Your task to perform on an android device: Open calendar and show me the fourth week of next month Image 0: 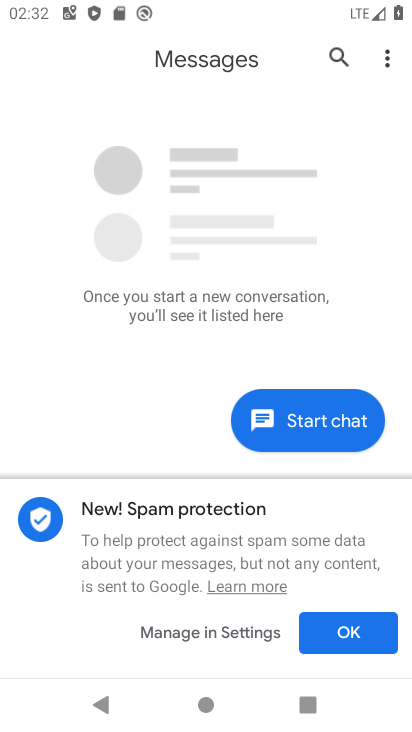
Step 0: drag from (172, 562) to (275, 173)
Your task to perform on an android device: Open calendar and show me the fourth week of next month Image 1: 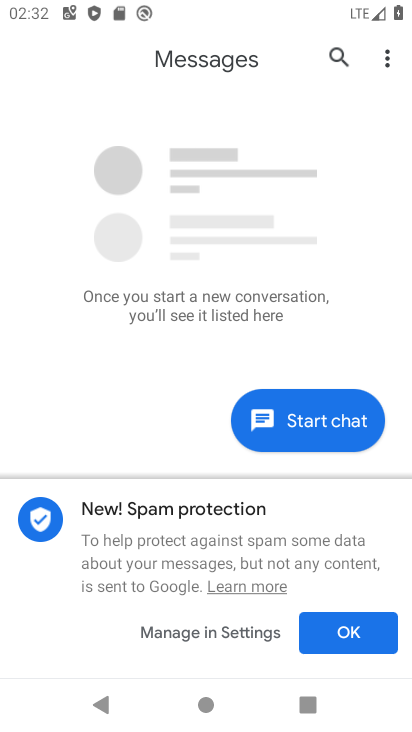
Step 1: press home button
Your task to perform on an android device: Open calendar and show me the fourth week of next month Image 2: 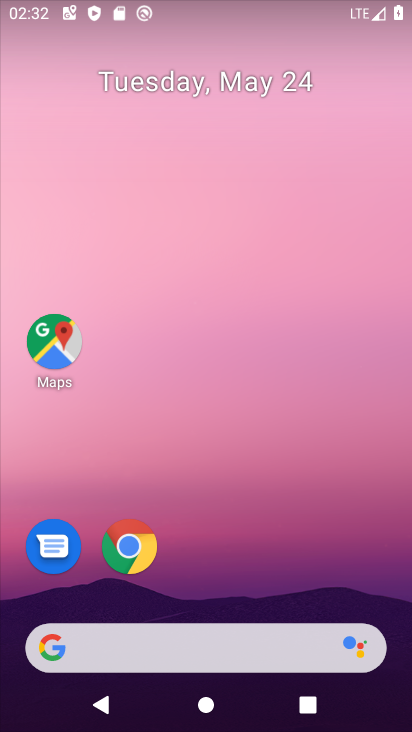
Step 2: drag from (236, 613) to (294, 212)
Your task to perform on an android device: Open calendar and show me the fourth week of next month Image 3: 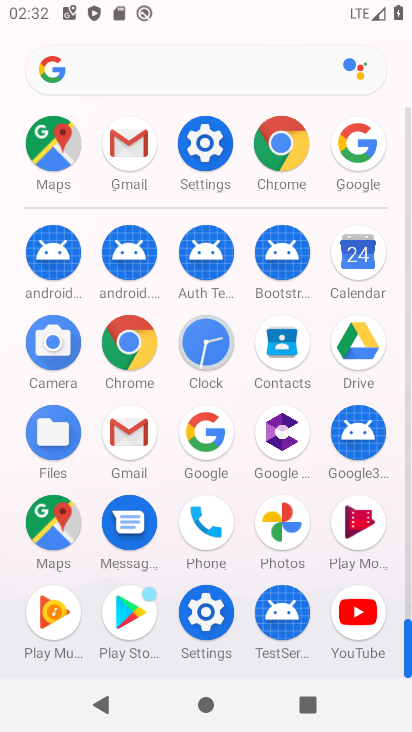
Step 3: click (365, 237)
Your task to perform on an android device: Open calendar and show me the fourth week of next month Image 4: 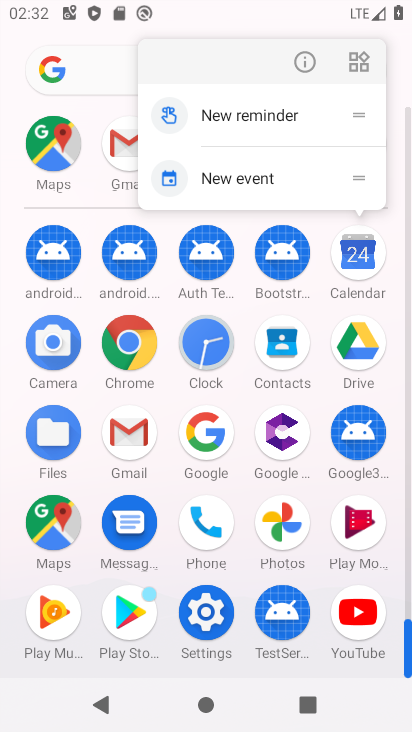
Step 4: click (305, 60)
Your task to perform on an android device: Open calendar and show me the fourth week of next month Image 5: 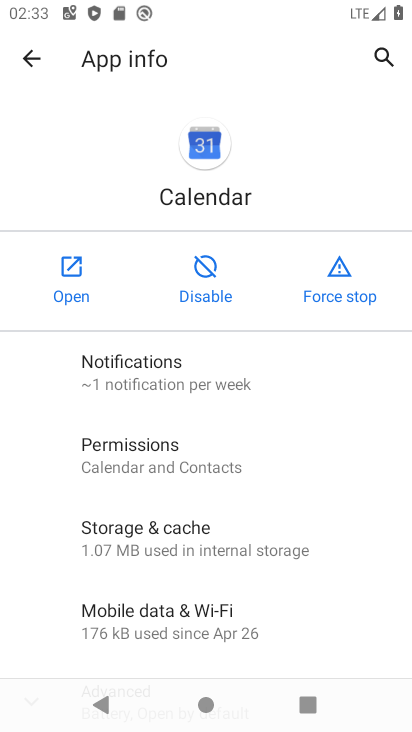
Step 5: click (69, 280)
Your task to perform on an android device: Open calendar and show me the fourth week of next month Image 6: 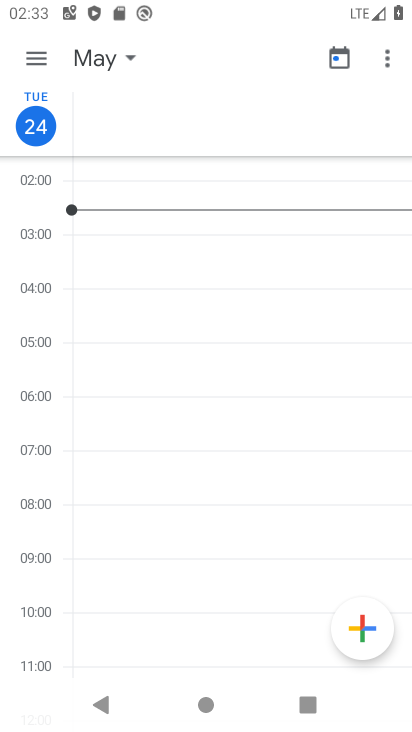
Step 6: click (117, 50)
Your task to perform on an android device: Open calendar and show me the fourth week of next month Image 7: 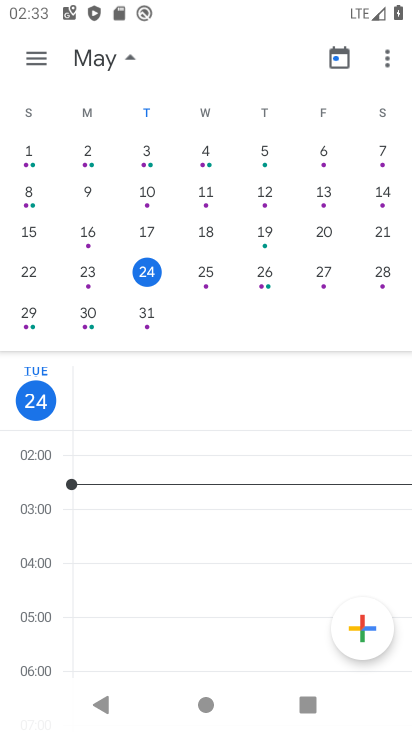
Step 7: drag from (353, 261) to (6, 270)
Your task to perform on an android device: Open calendar and show me the fourth week of next month Image 8: 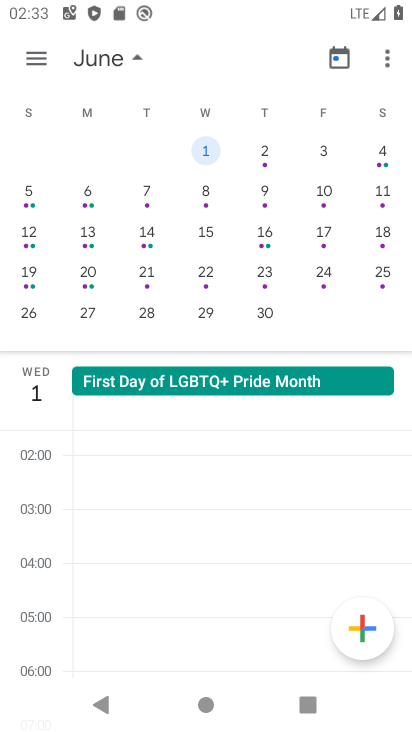
Step 8: click (200, 271)
Your task to perform on an android device: Open calendar and show me the fourth week of next month Image 9: 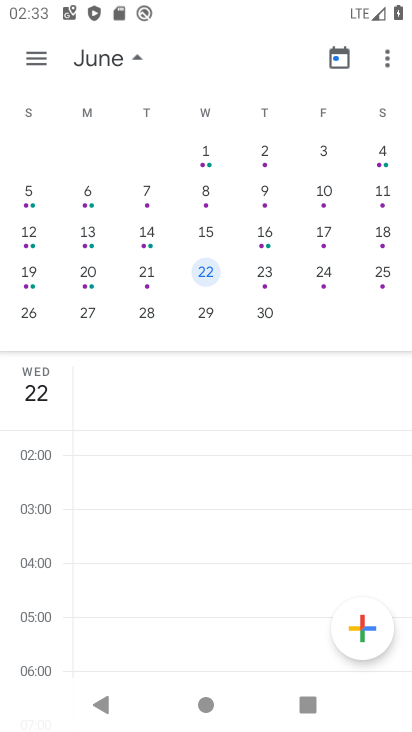
Step 9: task complete